Your task to perform on an android device: Open calendar and show me the second week of next month Image 0: 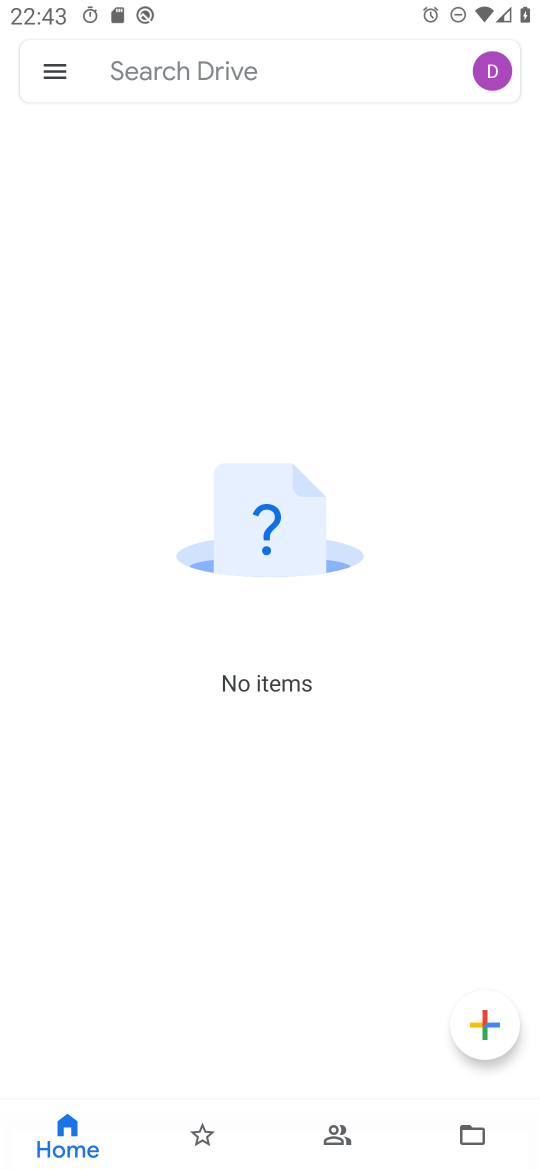
Step 0: press home button
Your task to perform on an android device: Open calendar and show me the second week of next month Image 1: 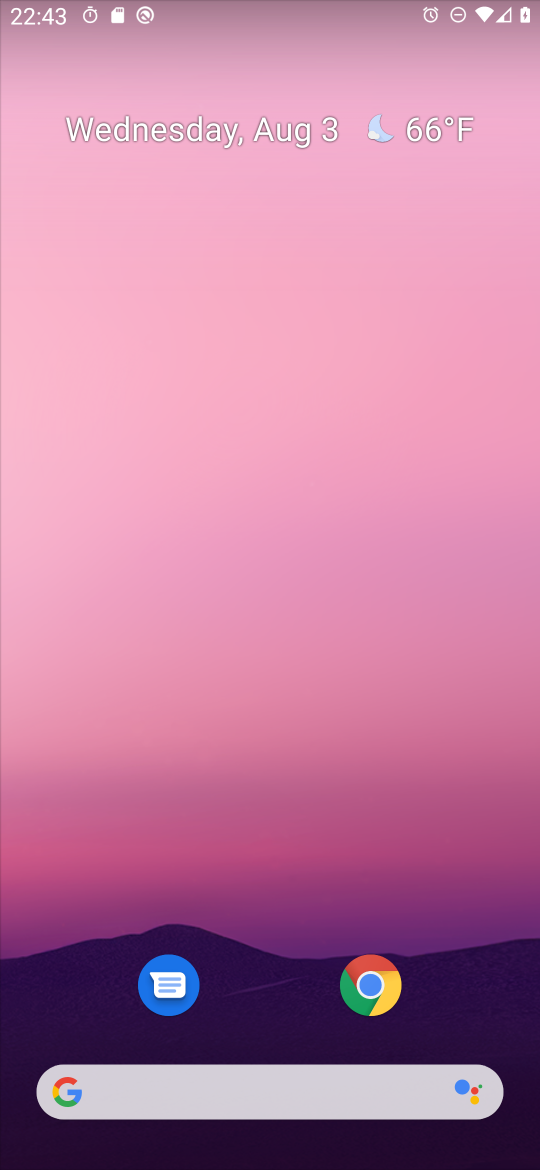
Step 1: drag from (241, 965) to (241, 228)
Your task to perform on an android device: Open calendar and show me the second week of next month Image 2: 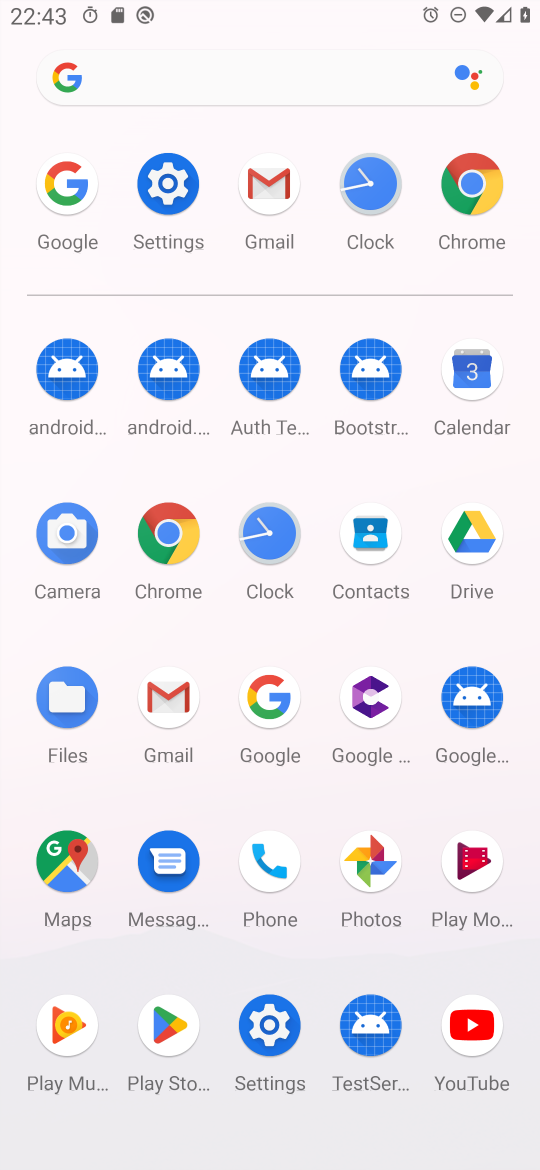
Step 2: click (456, 365)
Your task to perform on an android device: Open calendar and show me the second week of next month Image 3: 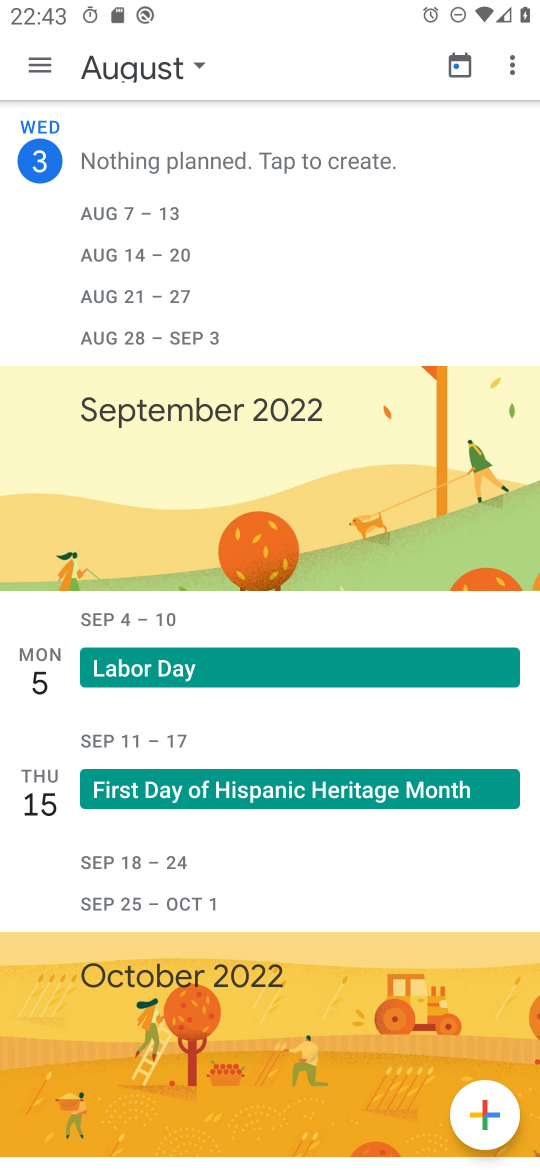
Step 3: click (183, 86)
Your task to perform on an android device: Open calendar and show me the second week of next month Image 4: 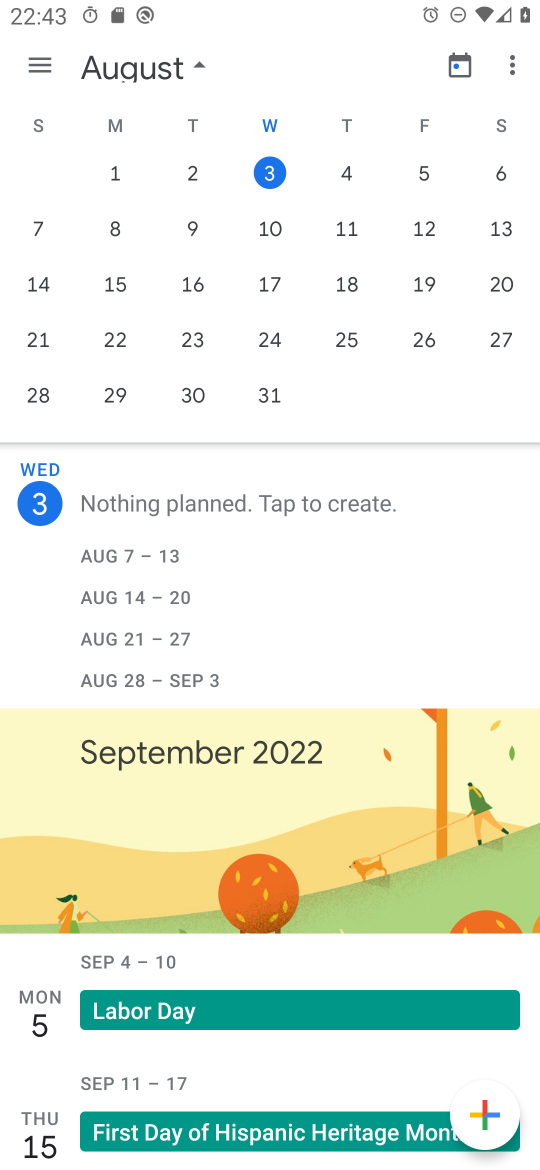
Step 4: drag from (461, 257) to (0, 185)
Your task to perform on an android device: Open calendar and show me the second week of next month Image 5: 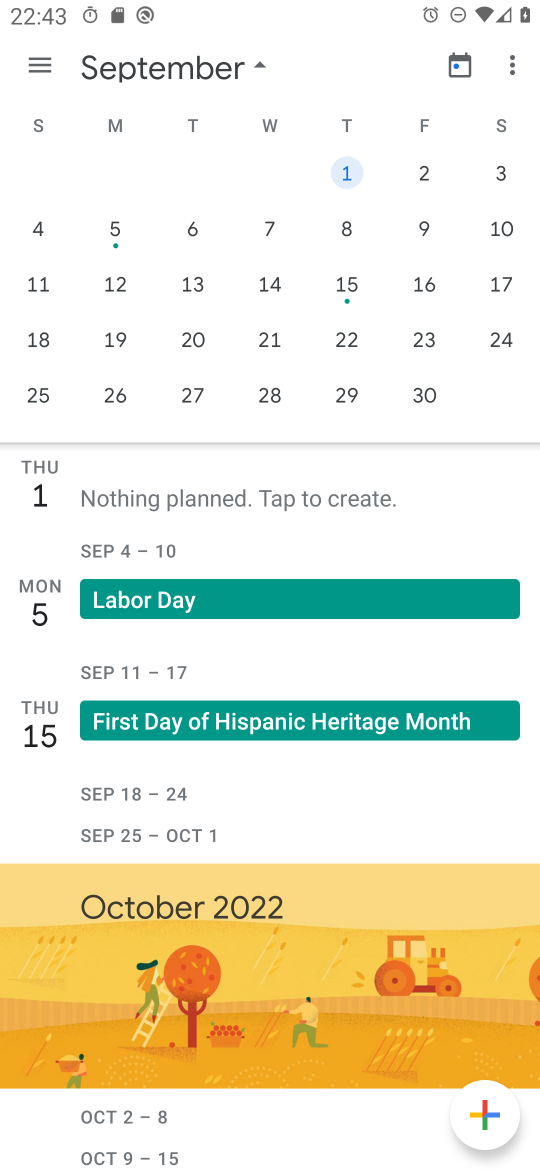
Step 5: click (37, 244)
Your task to perform on an android device: Open calendar and show me the second week of next month Image 6: 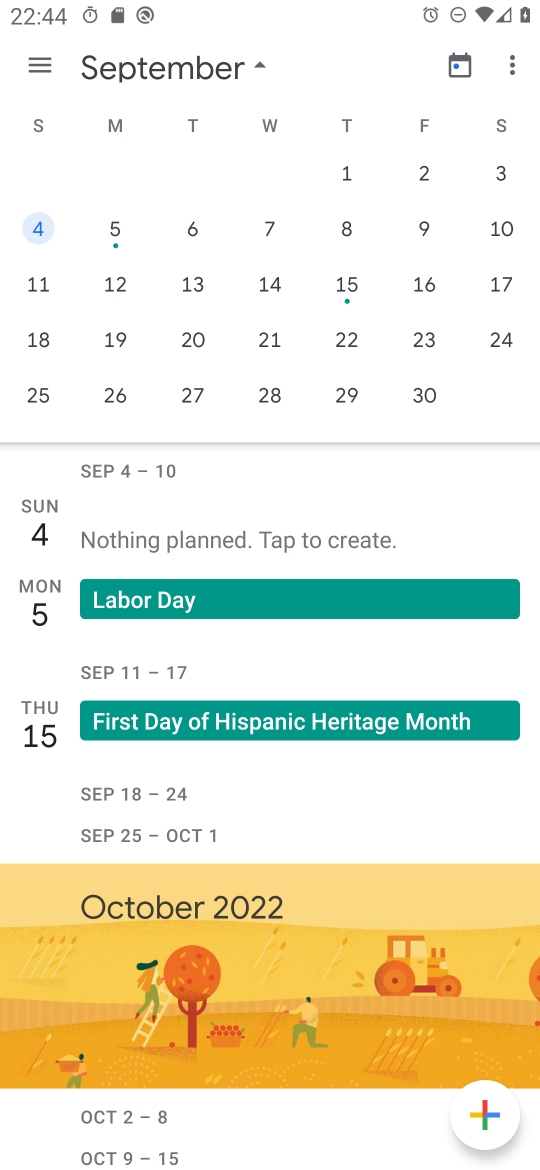
Step 6: task complete